Your task to perform on an android device: Open the stopwatch Image 0: 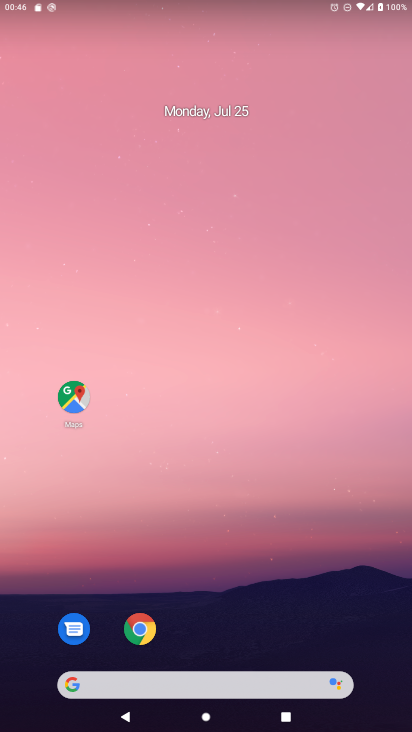
Step 0: drag from (190, 633) to (262, 130)
Your task to perform on an android device: Open the stopwatch Image 1: 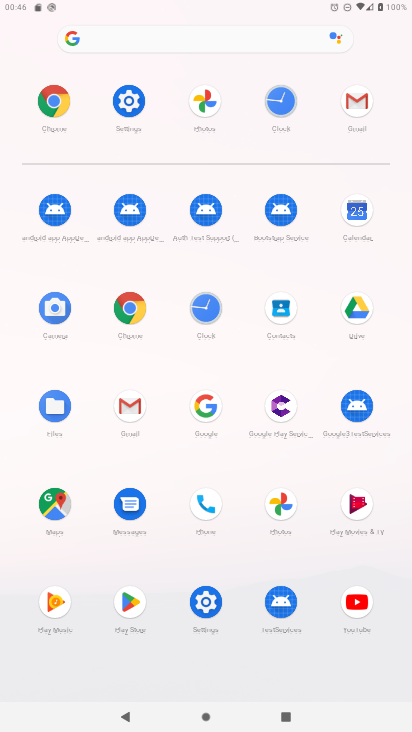
Step 1: click (210, 309)
Your task to perform on an android device: Open the stopwatch Image 2: 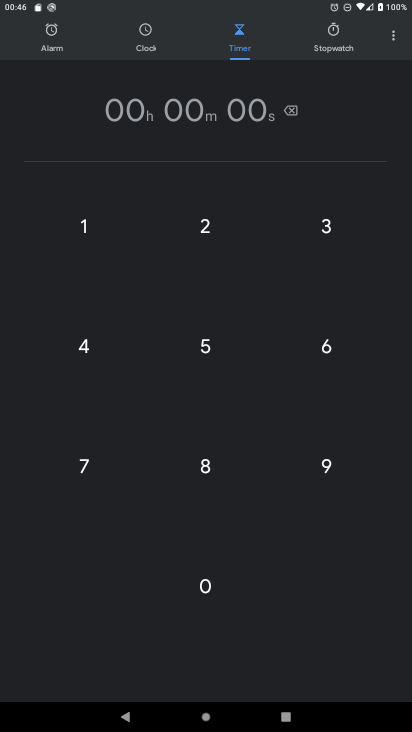
Step 2: click (335, 38)
Your task to perform on an android device: Open the stopwatch Image 3: 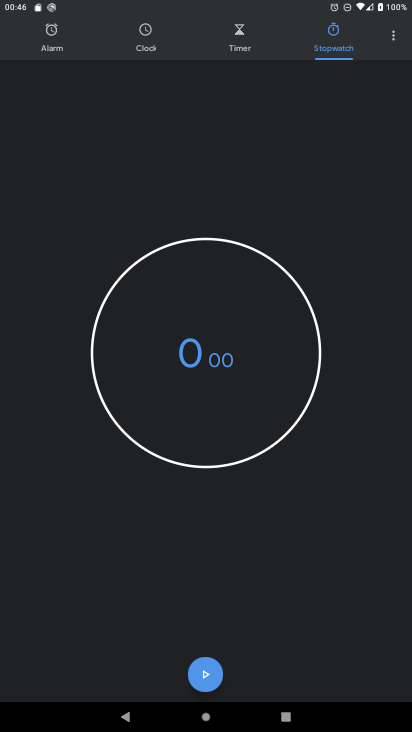
Step 3: click (199, 676)
Your task to perform on an android device: Open the stopwatch Image 4: 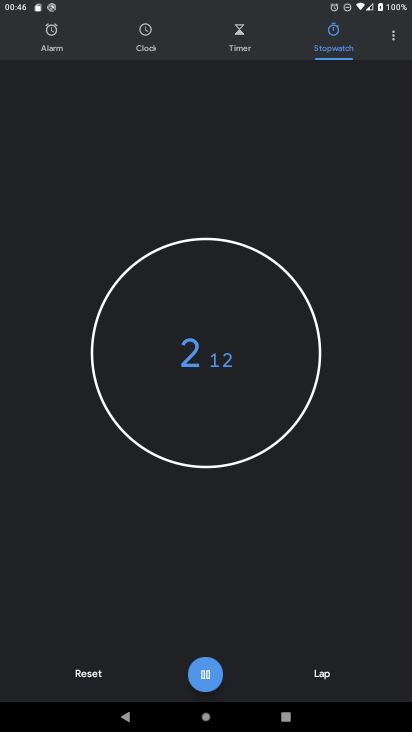
Step 4: task complete